Your task to perform on an android device: Open calendar and show me the first week of next month Image 0: 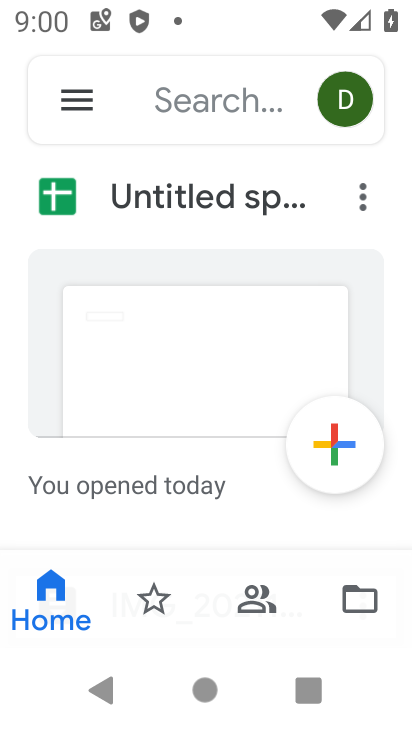
Step 0: press home button
Your task to perform on an android device: Open calendar and show me the first week of next month Image 1: 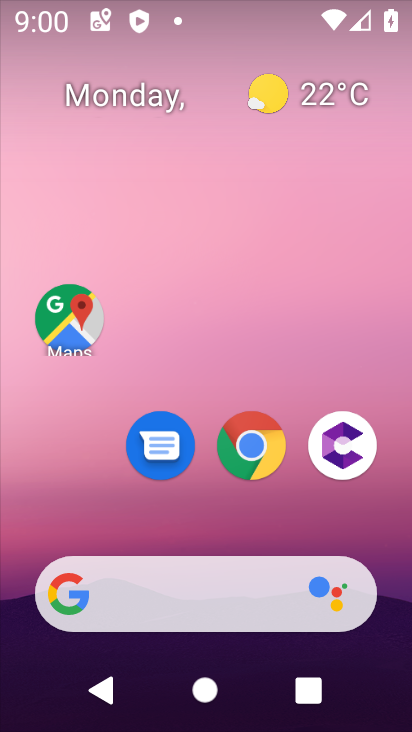
Step 1: drag from (216, 360) to (178, 29)
Your task to perform on an android device: Open calendar and show me the first week of next month Image 2: 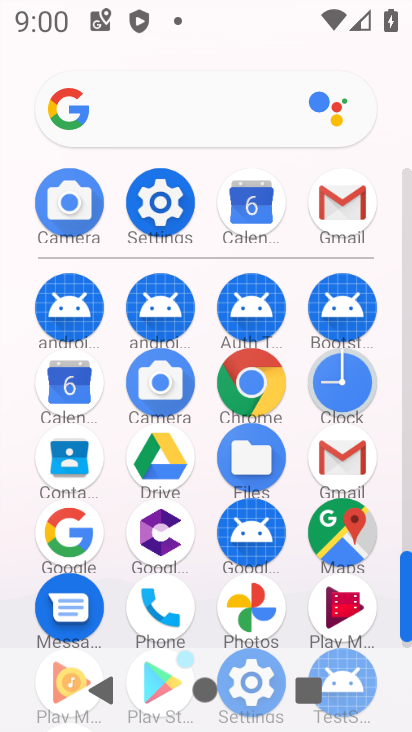
Step 2: click (237, 200)
Your task to perform on an android device: Open calendar and show me the first week of next month Image 3: 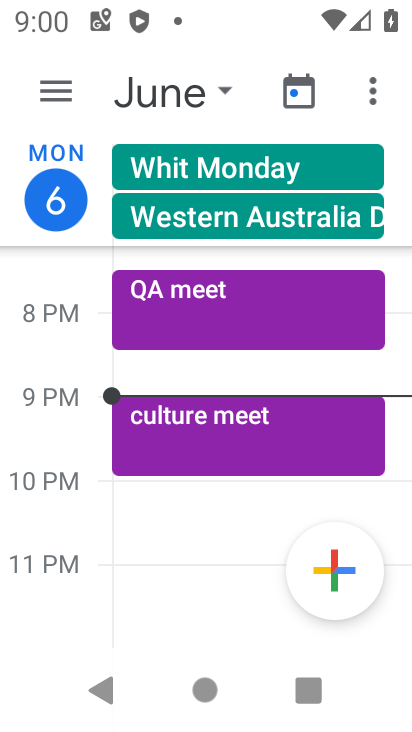
Step 3: click (49, 87)
Your task to perform on an android device: Open calendar and show me the first week of next month Image 4: 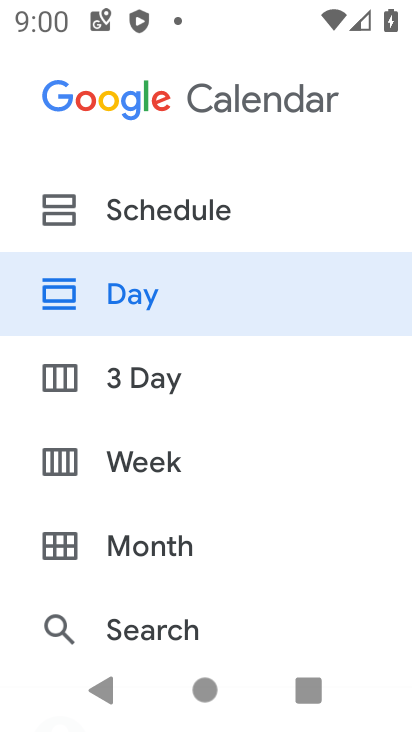
Step 4: click (136, 548)
Your task to perform on an android device: Open calendar and show me the first week of next month Image 5: 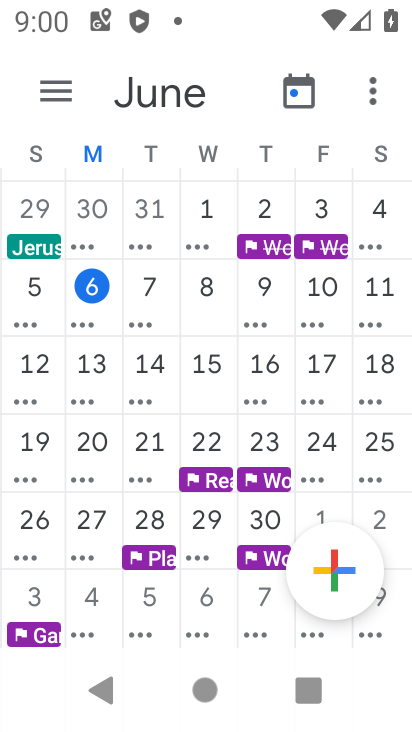
Step 5: drag from (357, 391) to (17, 345)
Your task to perform on an android device: Open calendar and show me the first week of next month Image 6: 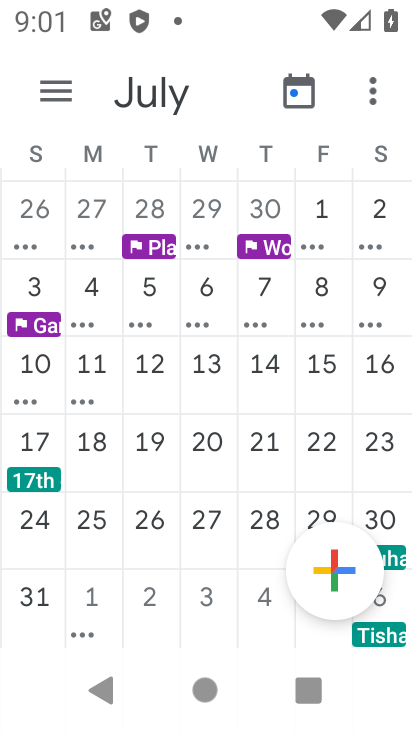
Step 6: click (18, 296)
Your task to perform on an android device: Open calendar and show me the first week of next month Image 7: 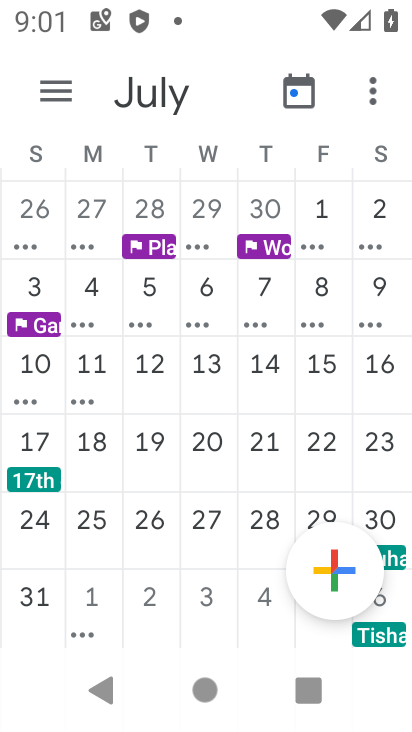
Step 7: click (32, 284)
Your task to perform on an android device: Open calendar and show me the first week of next month Image 8: 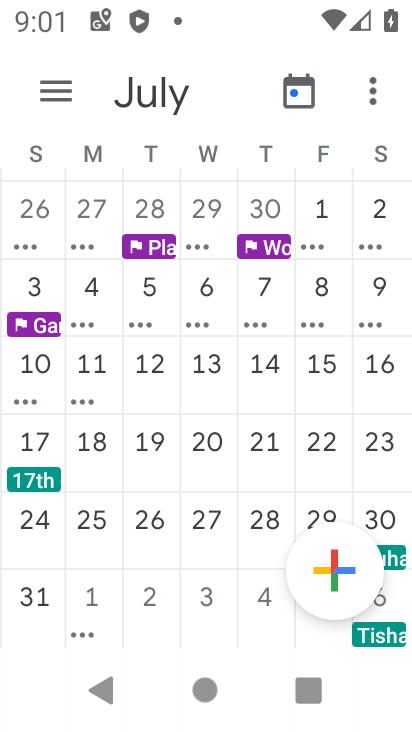
Step 8: click (86, 289)
Your task to perform on an android device: Open calendar and show me the first week of next month Image 9: 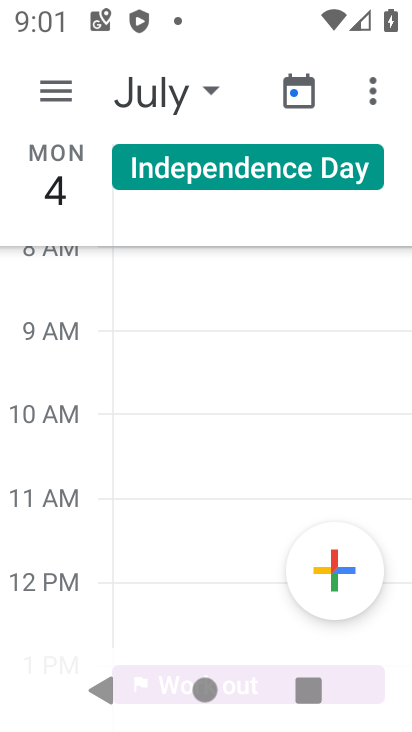
Step 9: click (68, 94)
Your task to perform on an android device: Open calendar and show me the first week of next month Image 10: 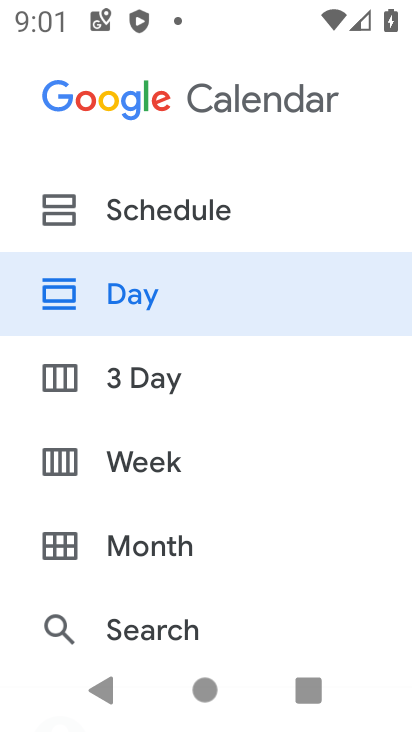
Step 10: click (165, 467)
Your task to perform on an android device: Open calendar and show me the first week of next month Image 11: 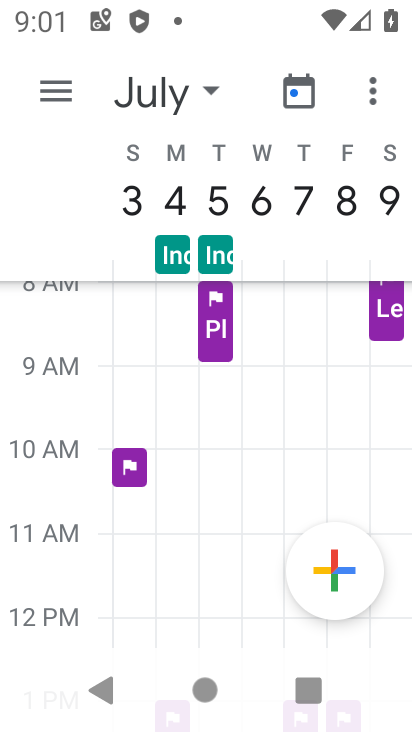
Step 11: task complete